Your task to perform on an android device: turn on airplane mode Image 0: 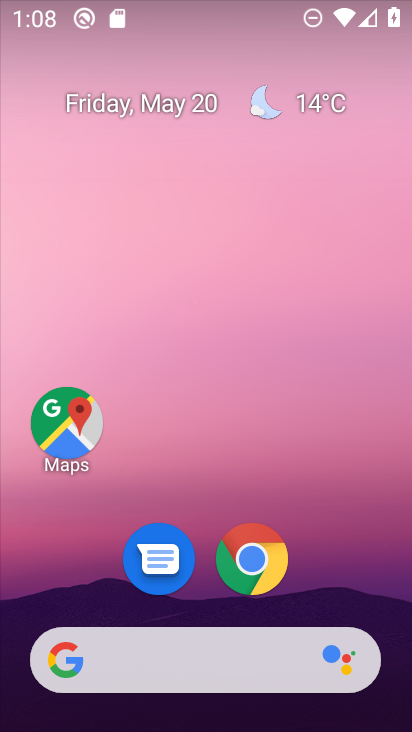
Step 0: drag from (349, 594) to (297, 122)
Your task to perform on an android device: turn on airplane mode Image 1: 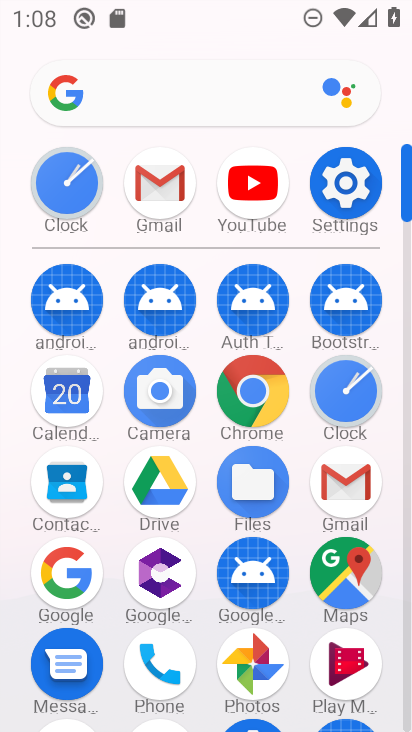
Step 1: click (369, 212)
Your task to perform on an android device: turn on airplane mode Image 2: 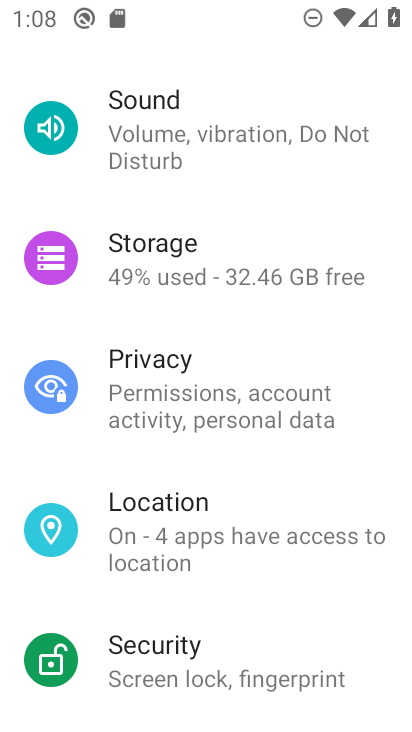
Step 2: drag from (369, 212) to (280, 715)
Your task to perform on an android device: turn on airplane mode Image 3: 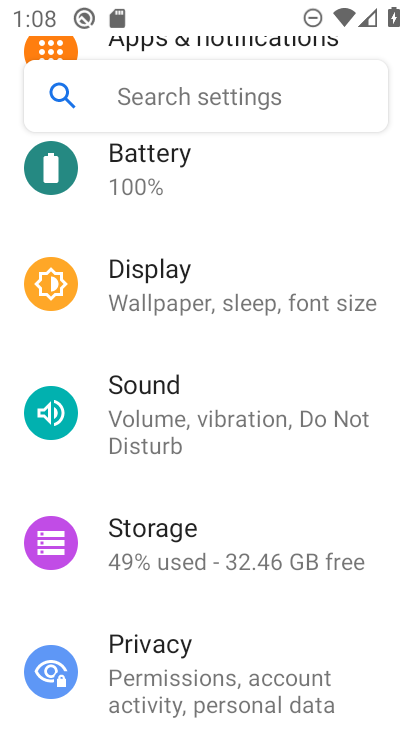
Step 3: drag from (235, 175) to (266, 618)
Your task to perform on an android device: turn on airplane mode Image 4: 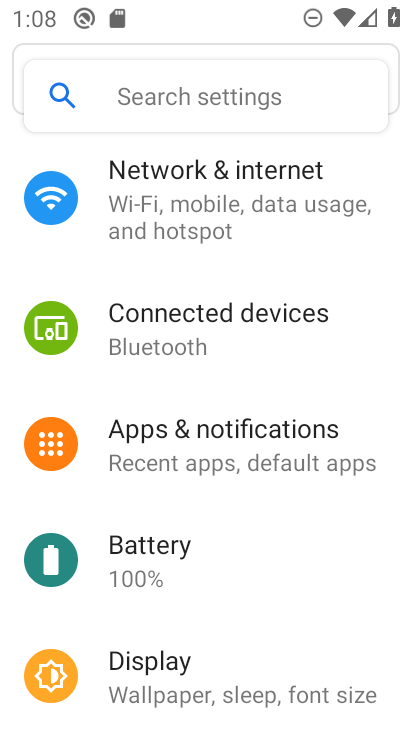
Step 4: click (225, 247)
Your task to perform on an android device: turn on airplane mode Image 5: 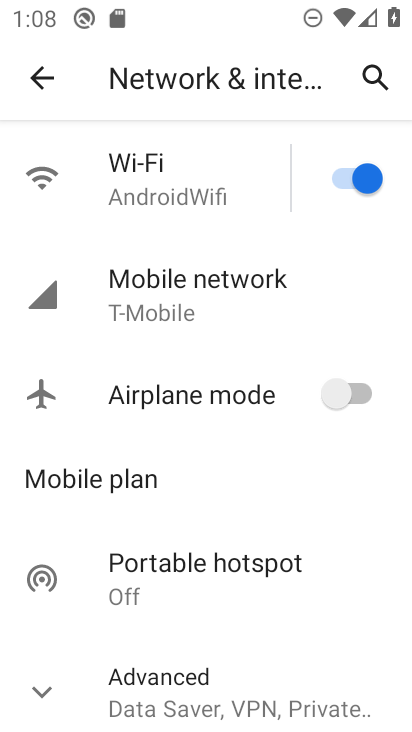
Step 5: click (204, 386)
Your task to perform on an android device: turn on airplane mode Image 6: 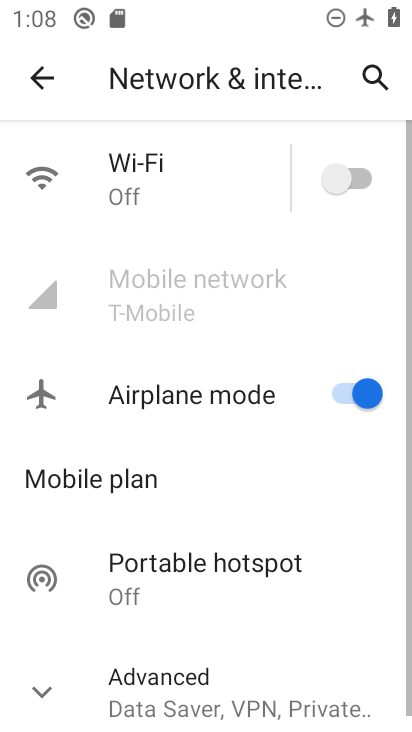
Step 6: task complete